Your task to perform on an android device: toggle translation in the chrome app Image 0: 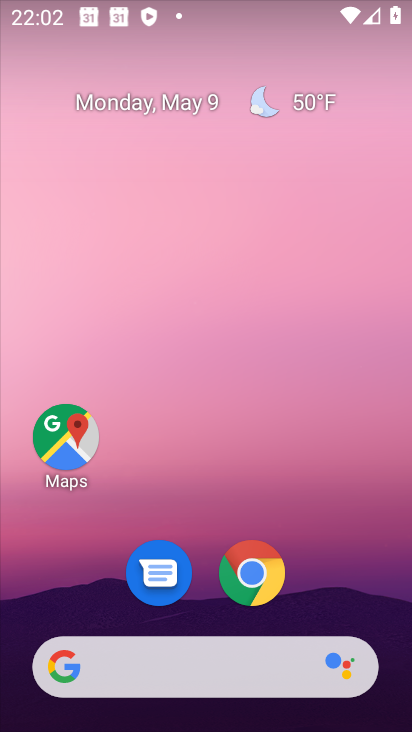
Step 0: click (257, 575)
Your task to perform on an android device: toggle translation in the chrome app Image 1: 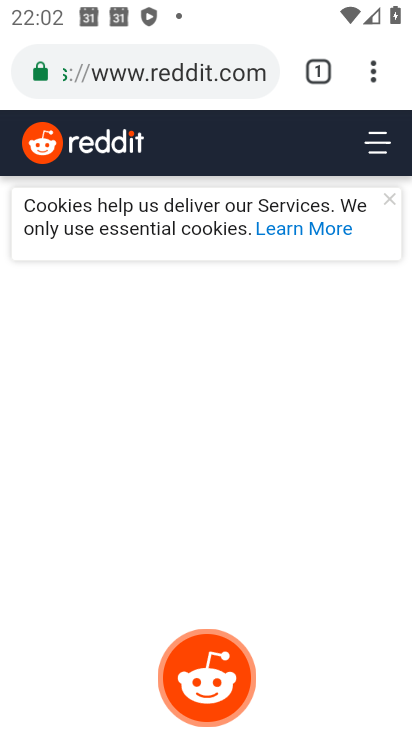
Step 1: click (370, 62)
Your task to perform on an android device: toggle translation in the chrome app Image 2: 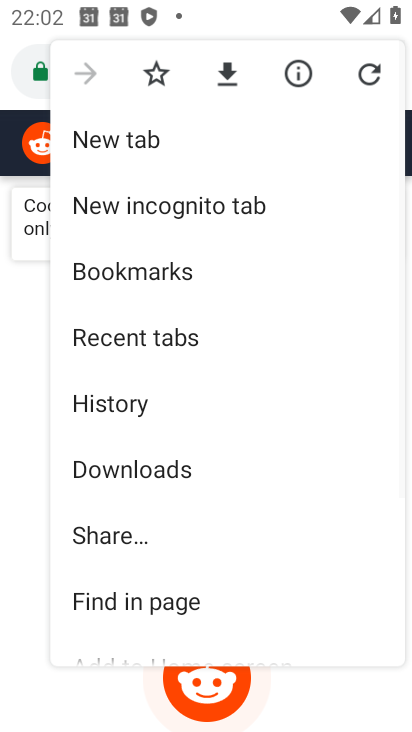
Step 2: drag from (218, 546) to (253, 131)
Your task to perform on an android device: toggle translation in the chrome app Image 3: 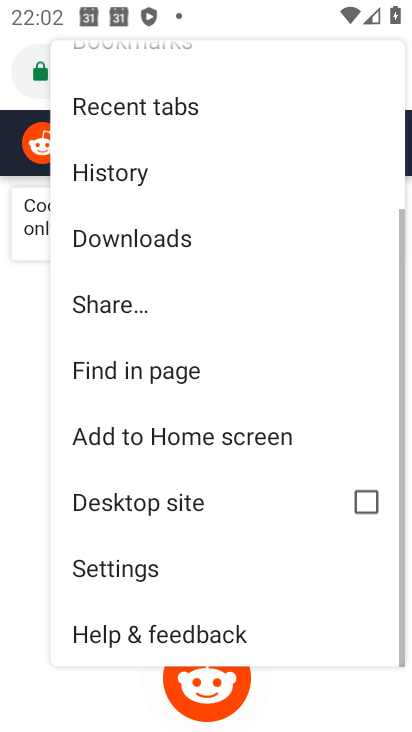
Step 3: click (158, 569)
Your task to perform on an android device: toggle translation in the chrome app Image 4: 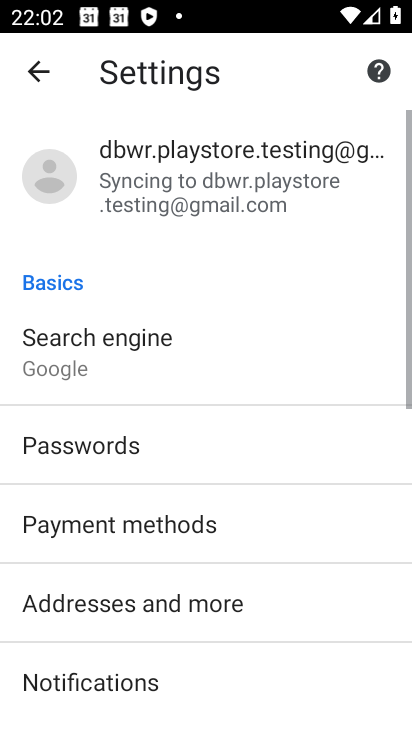
Step 4: drag from (197, 634) to (253, 228)
Your task to perform on an android device: toggle translation in the chrome app Image 5: 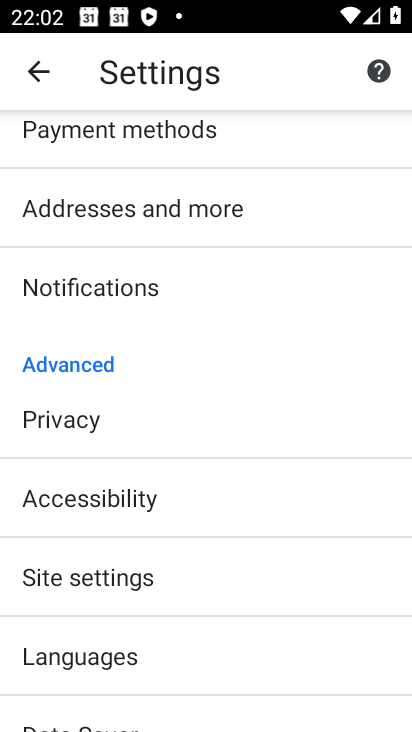
Step 5: click (103, 654)
Your task to perform on an android device: toggle translation in the chrome app Image 6: 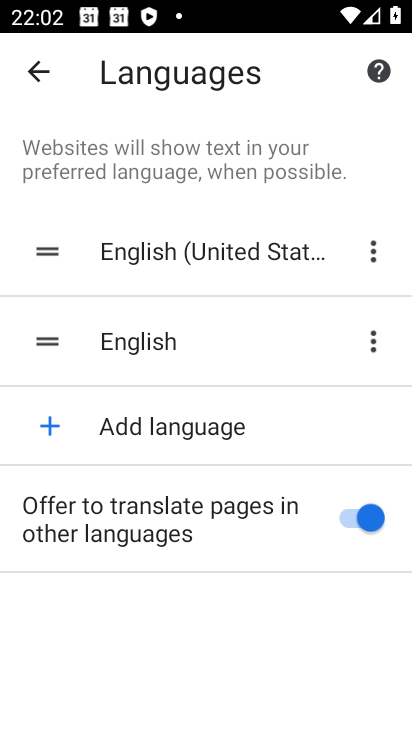
Step 6: click (365, 510)
Your task to perform on an android device: toggle translation in the chrome app Image 7: 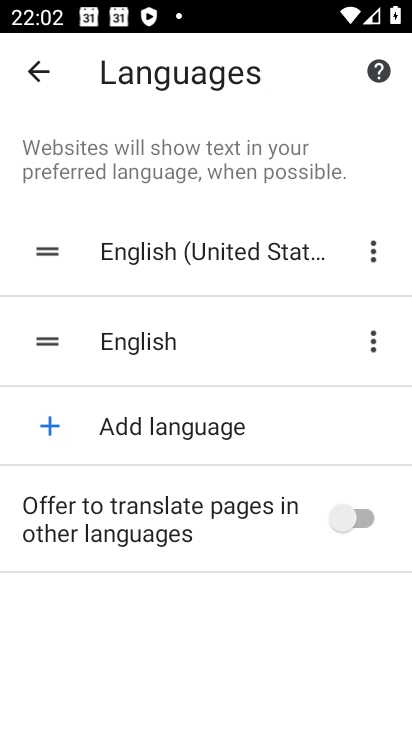
Step 7: task complete